Your task to perform on an android device: Open the calendar and show me this week's events? Image 0: 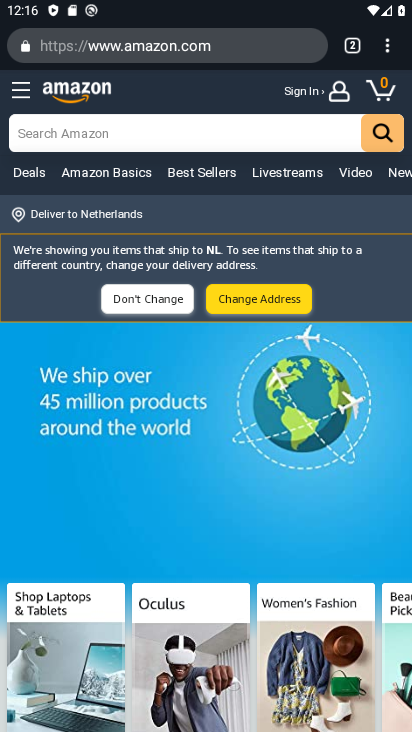
Step 0: press home button
Your task to perform on an android device: Open the calendar and show me this week's events? Image 1: 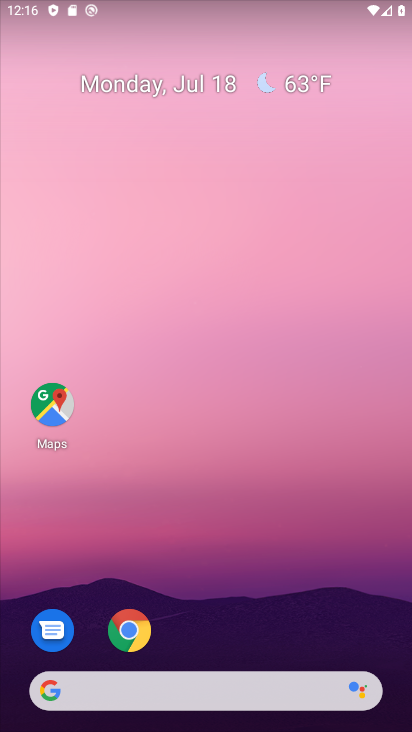
Step 1: drag from (222, 650) to (145, 12)
Your task to perform on an android device: Open the calendar and show me this week's events? Image 2: 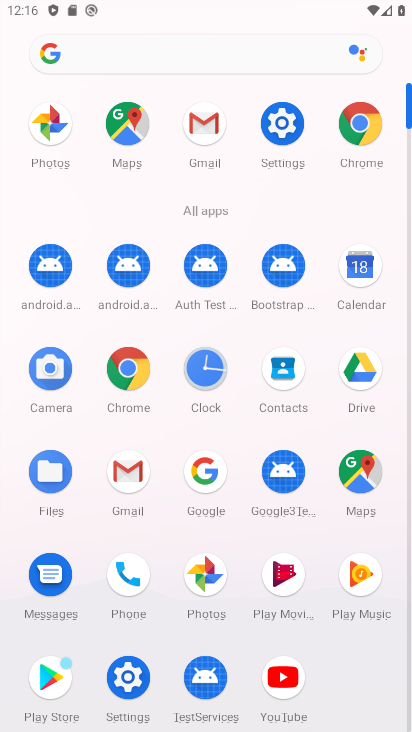
Step 2: click (363, 285)
Your task to perform on an android device: Open the calendar and show me this week's events? Image 3: 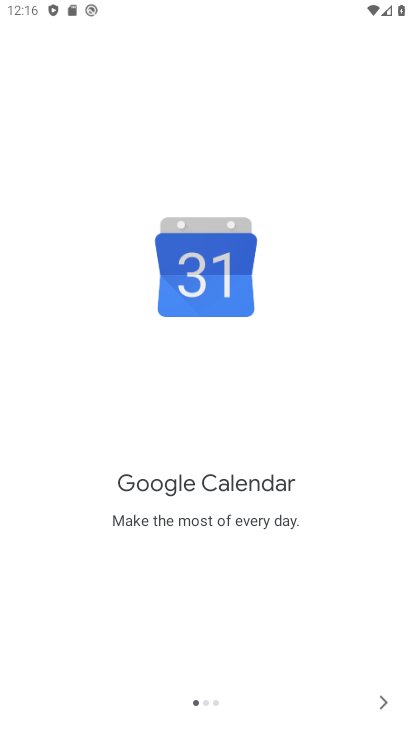
Step 3: click (374, 697)
Your task to perform on an android device: Open the calendar and show me this week's events? Image 4: 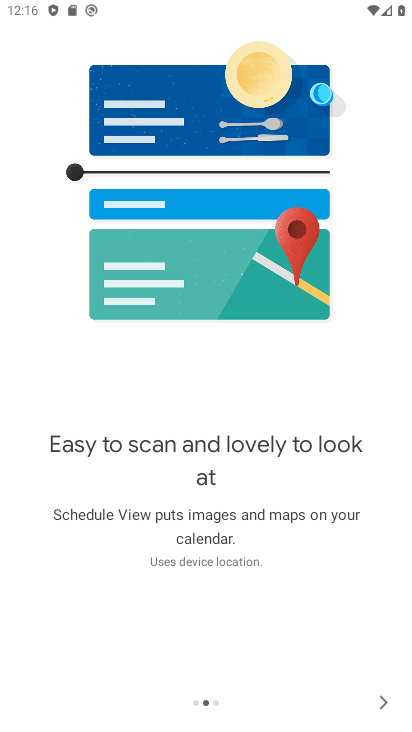
Step 4: click (374, 697)
Your task to perform on an android device: Open the calendar and show me this week's events? Image 5: 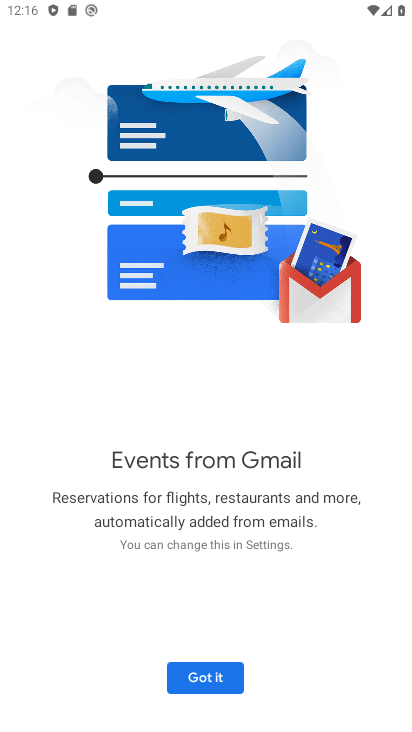
Step 5: click (215, 688)
Your task to perform on an android device: Open the calendar and show me this week's events? Image 6: 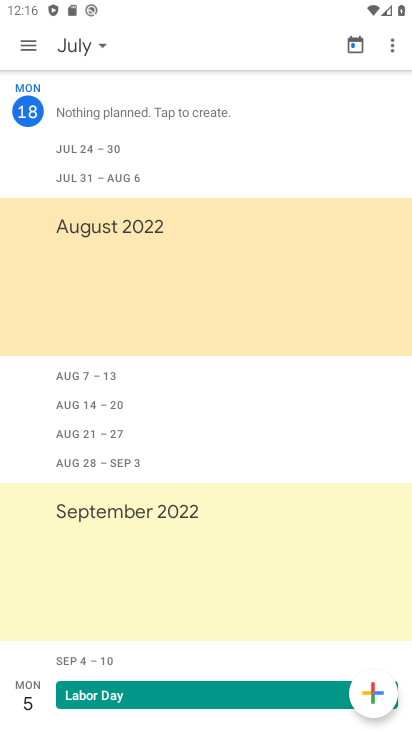
Step 6: click (25, 46)
Your task to perform on an android device: Open the calendar and show me this week's events? Image 7: 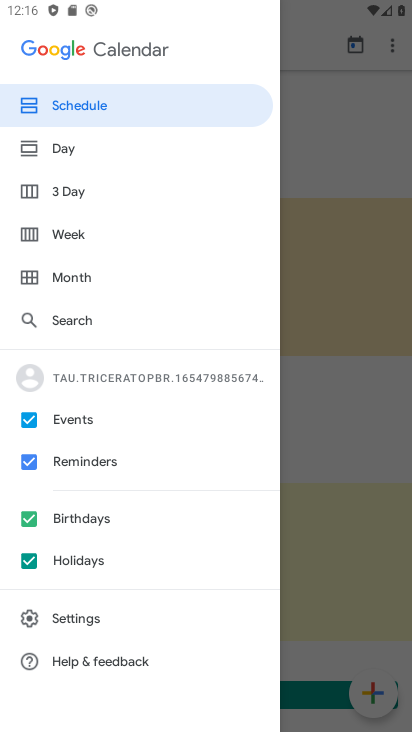
Step 7: click (67, 224)
Your task to perform on an android device: Open the calendar and show me this week's events? Image 8: 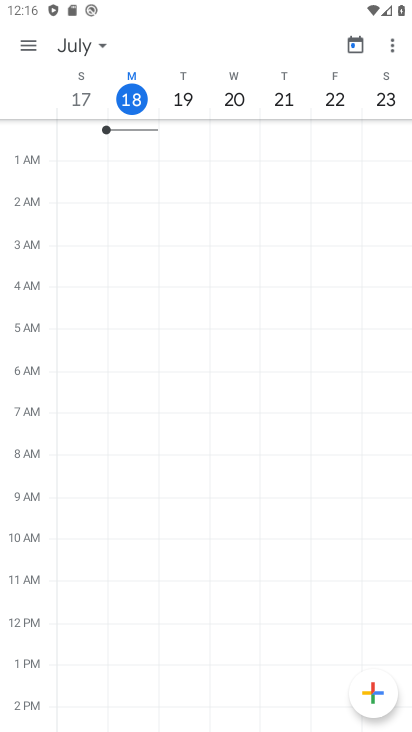
Step 8: task complete